Your task to perform on an android device: turn on location history Image 0: 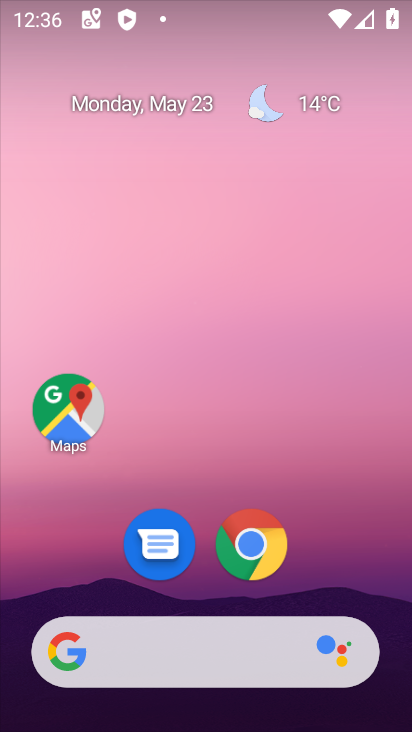
Step 0: drag from (310, 541) to (290, 112)
Your task to perform on an android device: turn on location history Image 1: 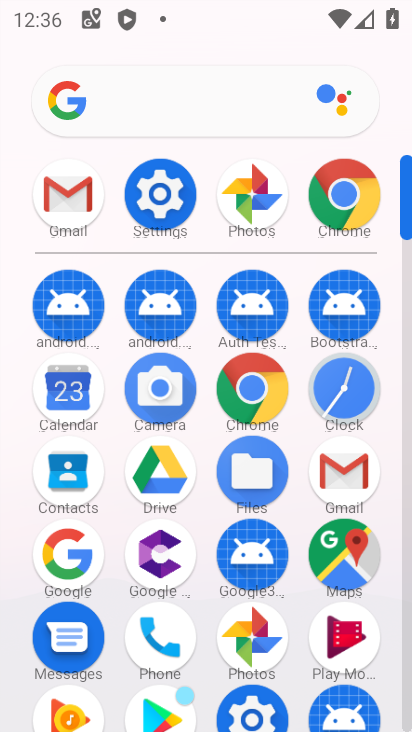
Step 1: click (163, 197)
Your task to perform on an android device: turn on location history Image 2: 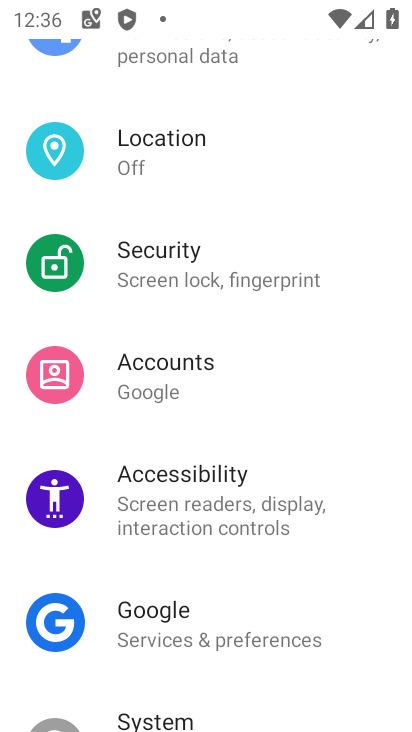
Step 2: drag from (155, 556) to (209, 662)
Your task to perform on an android device: turn on location history Image 3: 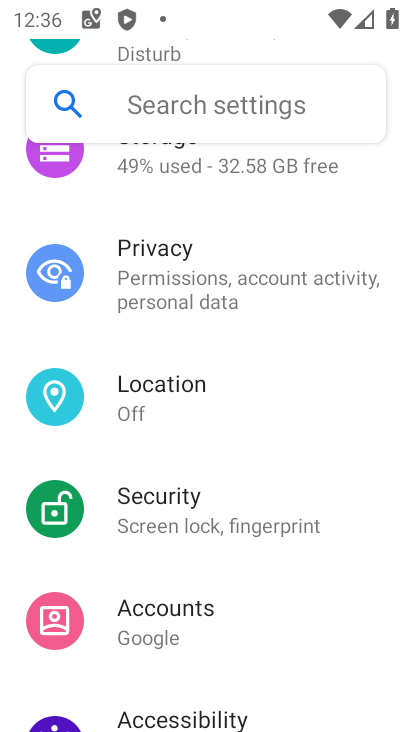
Step 3: click (194, 413)
Your task to perform on an android device: turn on location history Image 4: 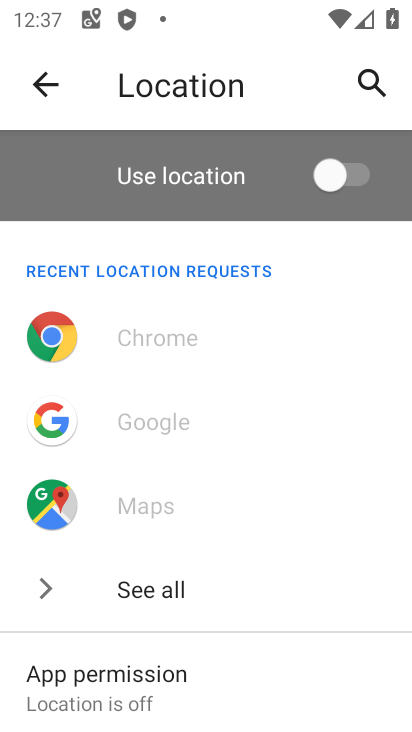
Step 4: drag from (278, 586) to (232, 174)
Your task to perform on an android device: turn on location history Image 5: 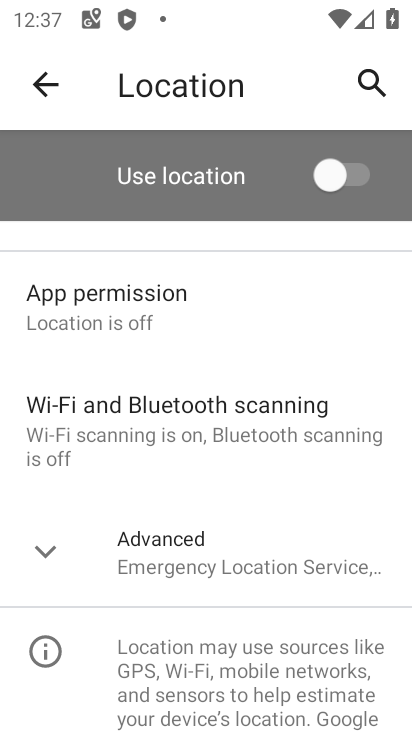
Step 5: click (174, 547)
Your task to perform on an android device: turn on location history Image 6: 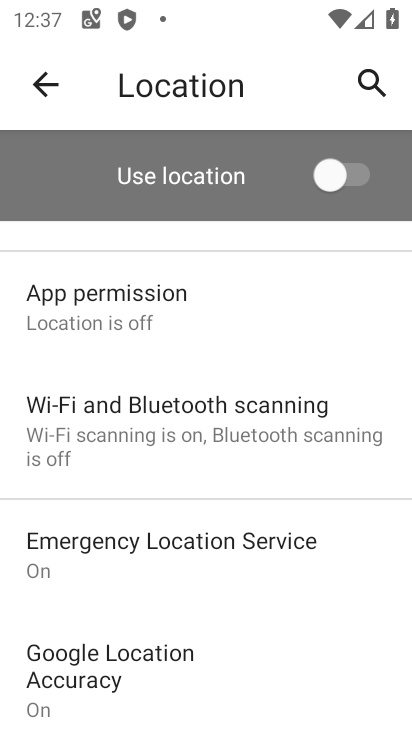
Step 6: drag from (163, 616) to (166, 244)
Your task to perform on an android device: turn on location history Image 7: 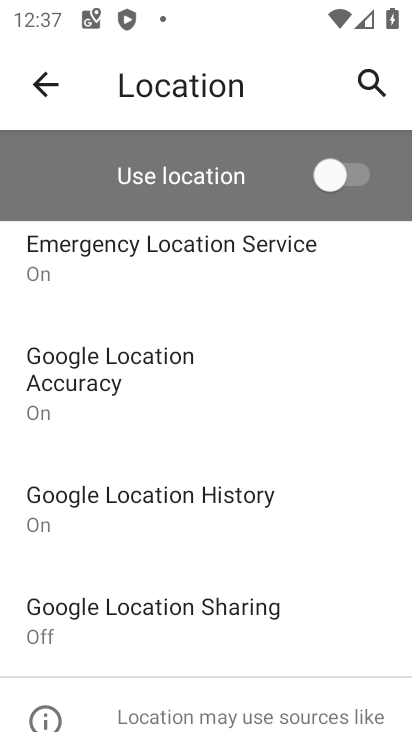
Step 7: click (166, 516)
Your task to perform on an android device: turn on location history Image 8: 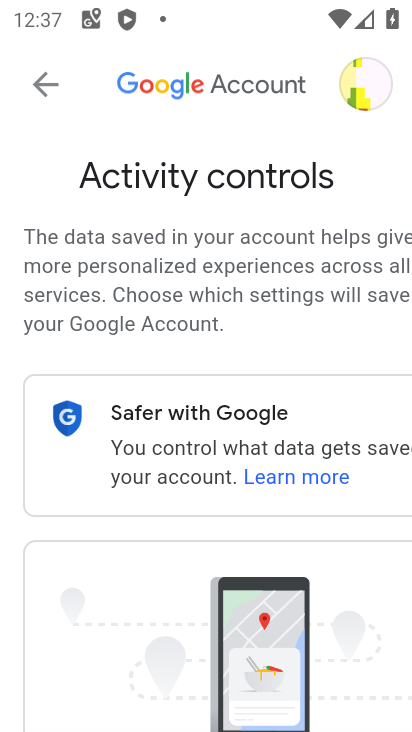
Step 8: task complete